Your task to perform on an android device: turn off sleep mode Image 0: 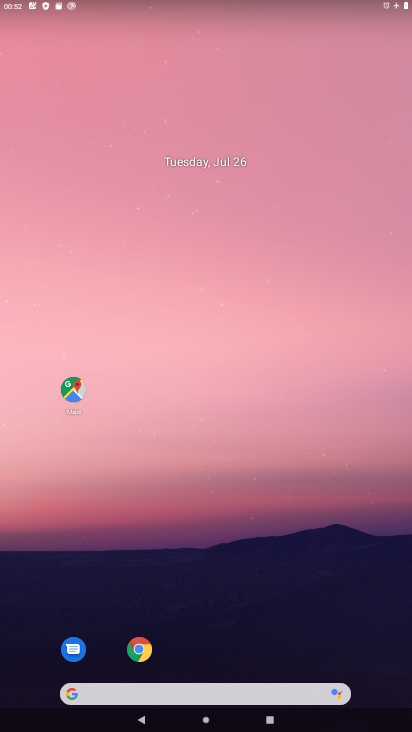
Step 0: drag from (216, 492) to (195, 86)
Your task to perform on an android device: turn off sleep mode Image 1: 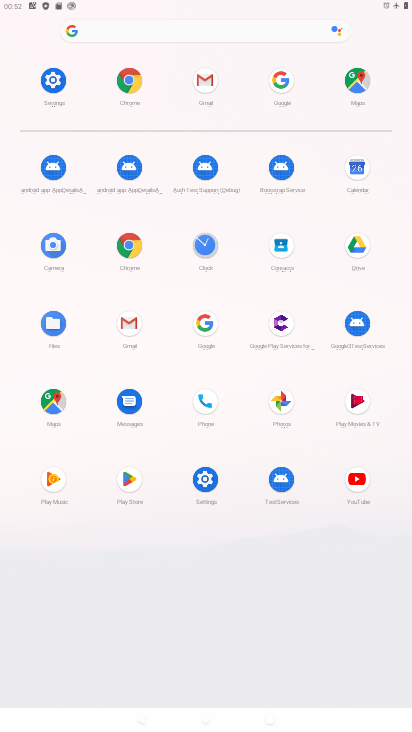
Step 1: click (56, 76)
Your task to perform on an android device: turn off sleep mode Image 2: 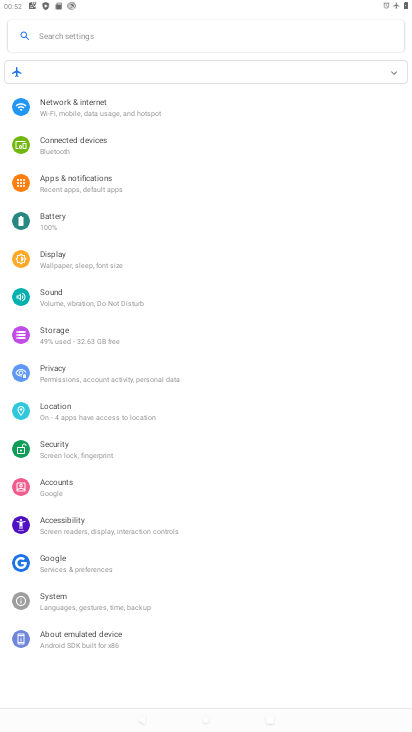
Step 2: click (91, 266)
Your task to perform on an android device: turn off sleep mode Image 3: 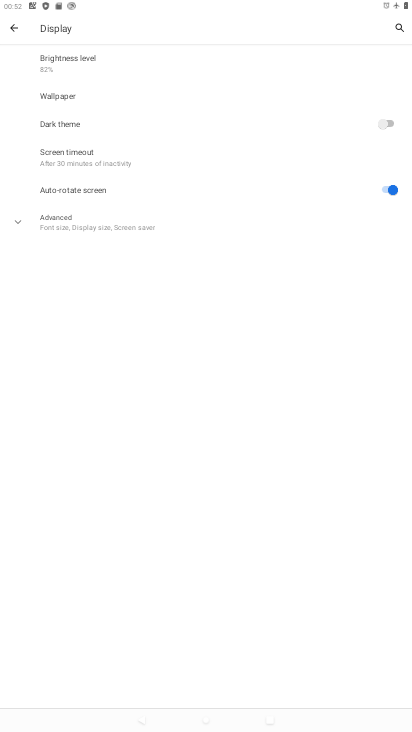
Step 3: task complete